Your task to perform on an android device: delete location history Image 0: 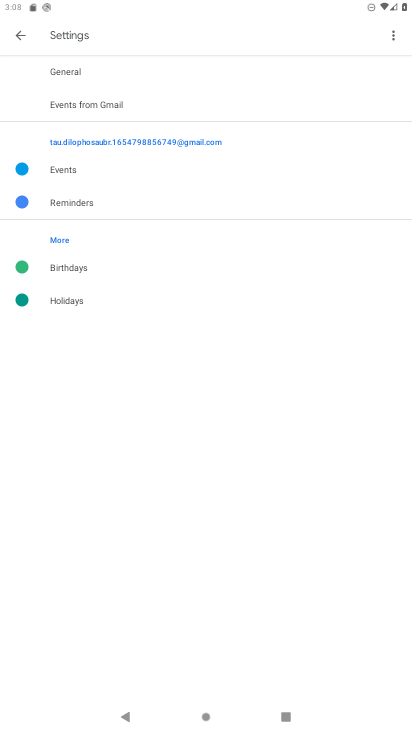
Step 0: press home button
Your task to perform on an android device: delete location history Image 1: 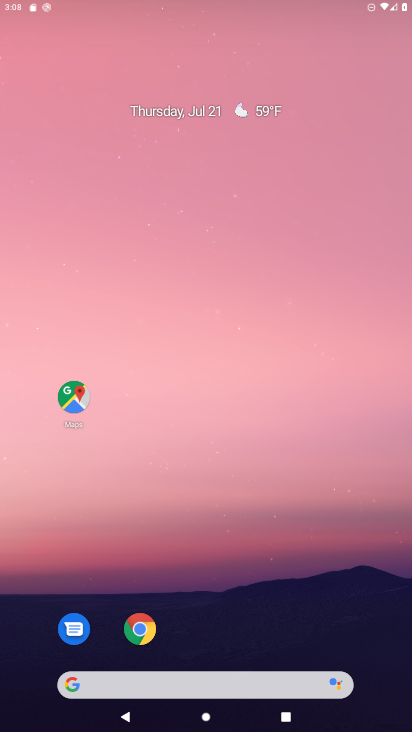
Step 1: drag from (247, 726) to (258, 290)
Your task to perform on an android device: delete location history Image 2: 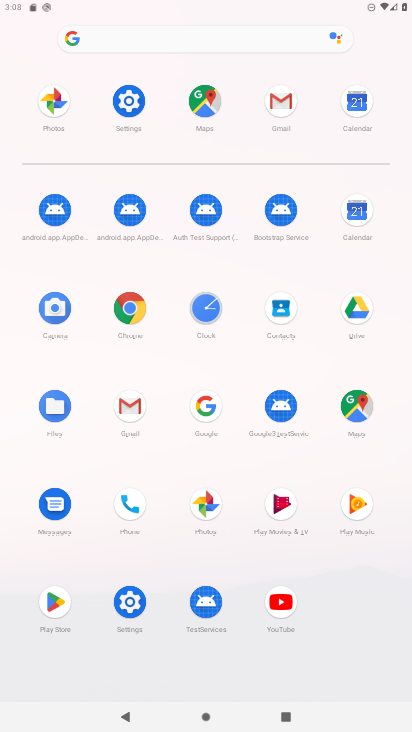
Step 2: click (361, 402)
Your task to perform on an android device: delete location history Image 3: 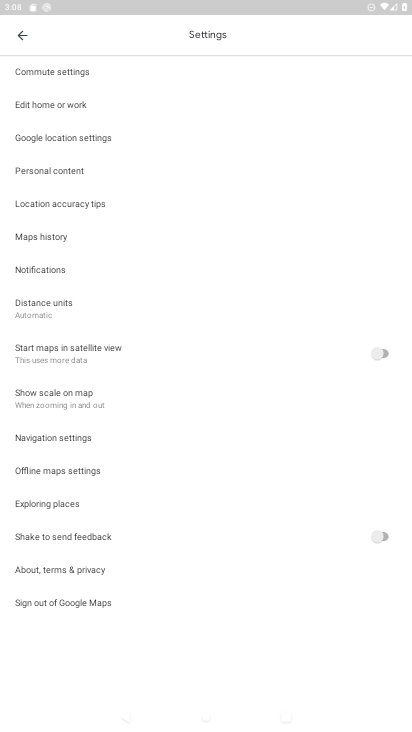
Step 3: click (23, 37)
Your task to perform on an android device: delete location history Image 4: 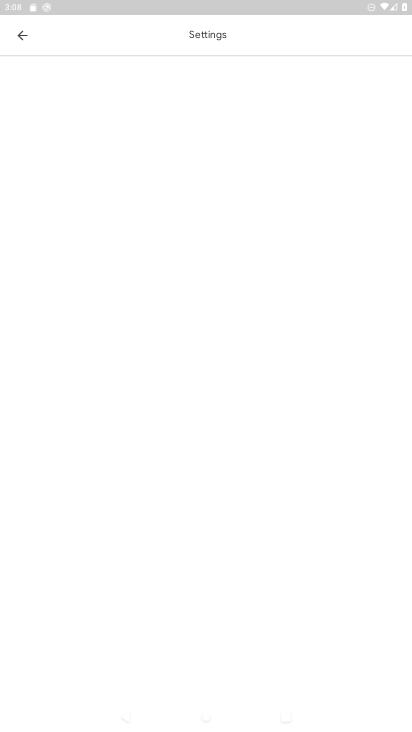
Step 4: click (21, 35)
Your task to perform on an android device: delete location history Image 5: 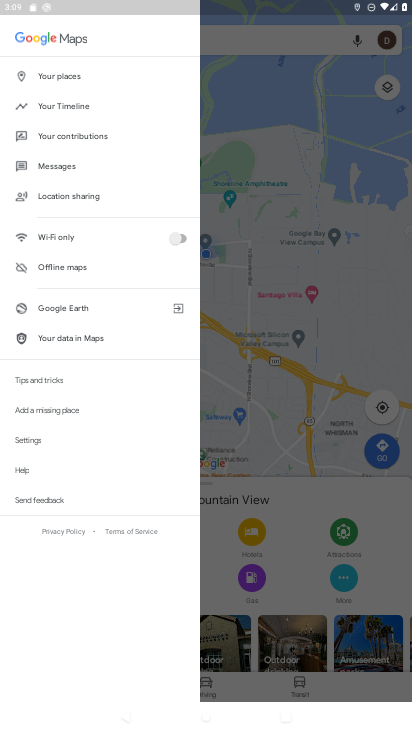
Step 5: click (60, 100)
Your task to perform on an android device: delete location history Image 6: 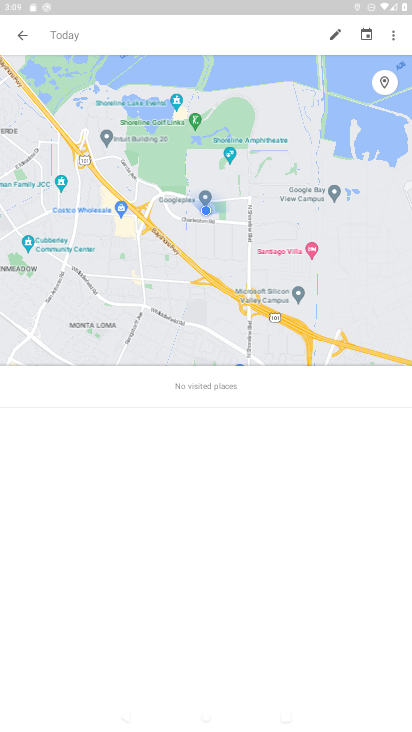
Step 6: click (393, 36)
Your task to perform on an android device: delete location history Image 7: 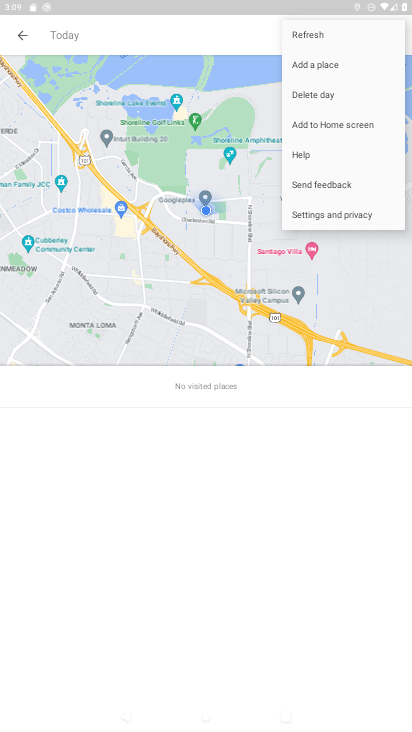
Step 7: click (335, 213)
Your task to perform on an android device: delete location history Image 8: 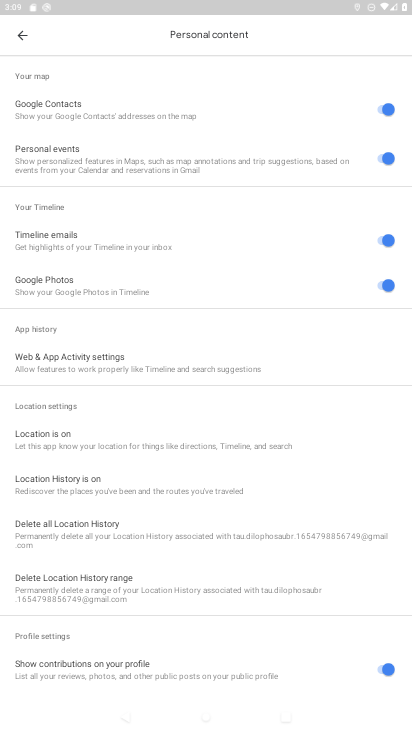
Step 8: click (63, 528)
Your task to perform on an android device: delete location history Image 9: 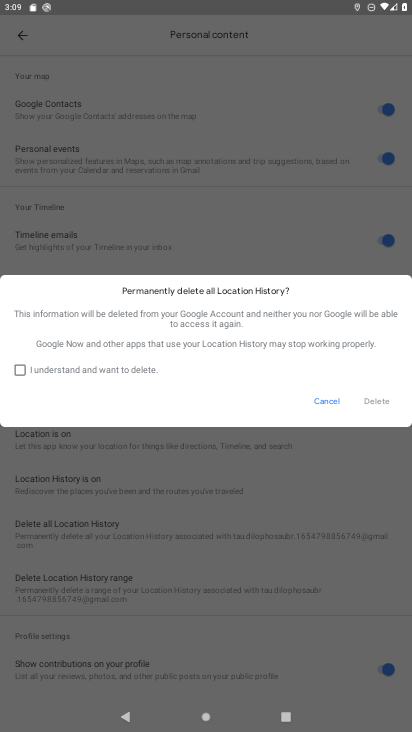
Step 9: click (22, 368)
Your task to perform on an android device: delete location history Image 10: 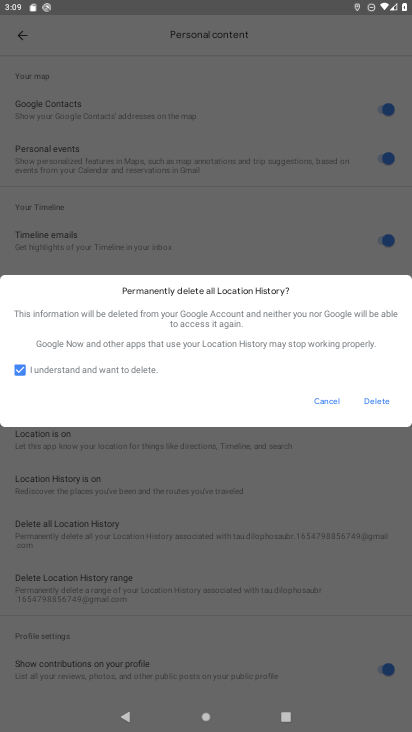
Step 10: click (383, 401)
Your task to perform on an android device: delete location history Image 11: 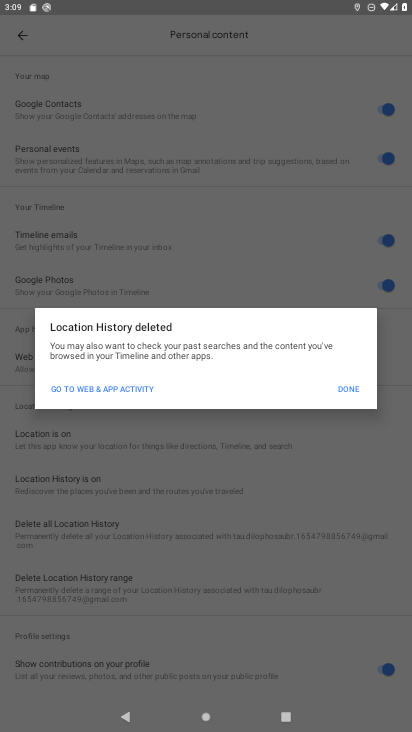
Step 11: click (340, 387)
Your task to perform on an android device: delete location history Image 12: 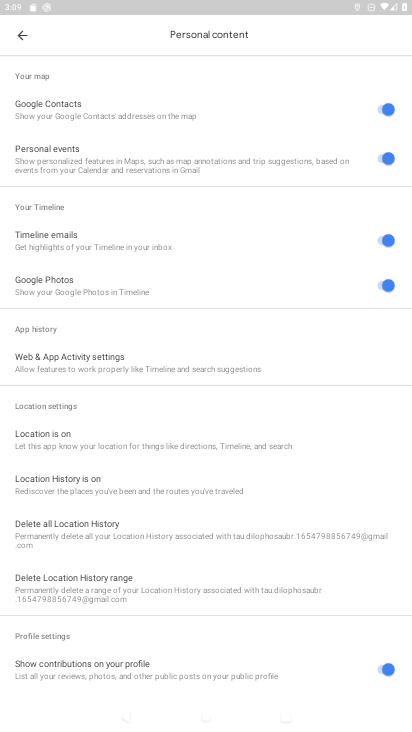
Step 12: task complete